Your task to perform on an android device: Open Chrome and go to settings Image 0: 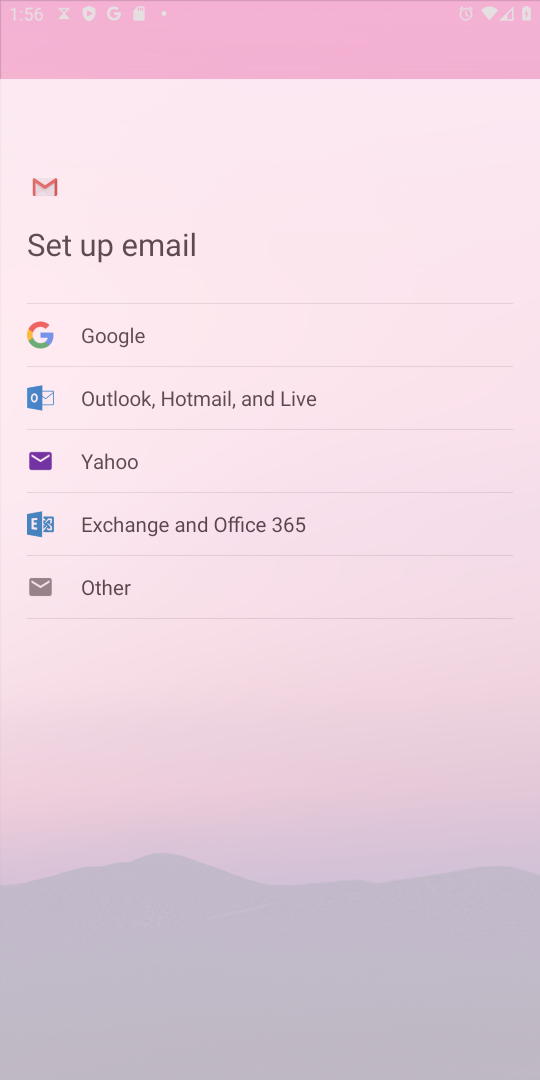
Step 0: press home button
Your task to perform on an android device: Open Chrome and go to settings Image 1: 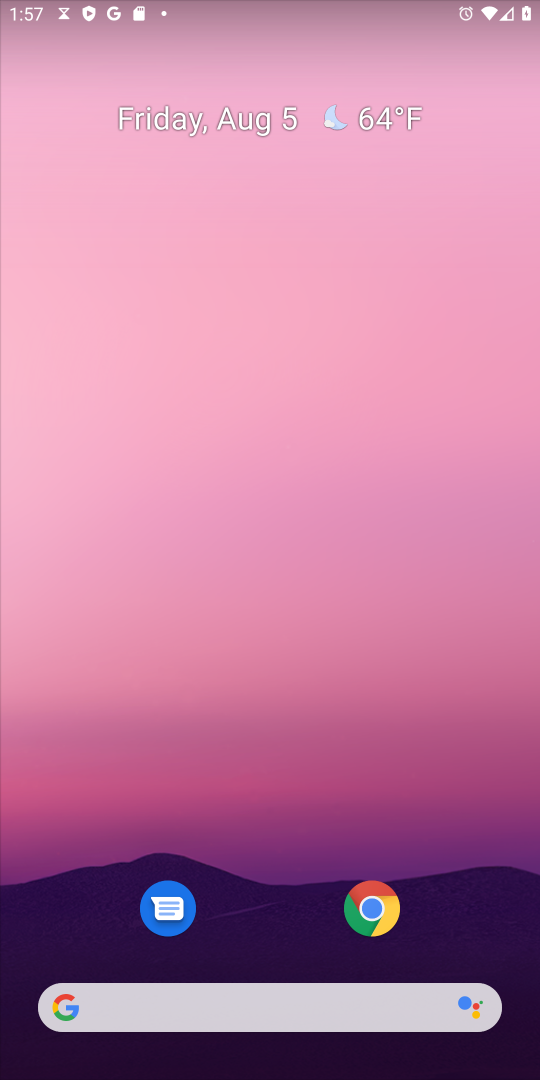
Step 1: drag from (282, 703) to (309, 94)
Your task to perform on an android device: Open Chrome and go to settings Image 2: 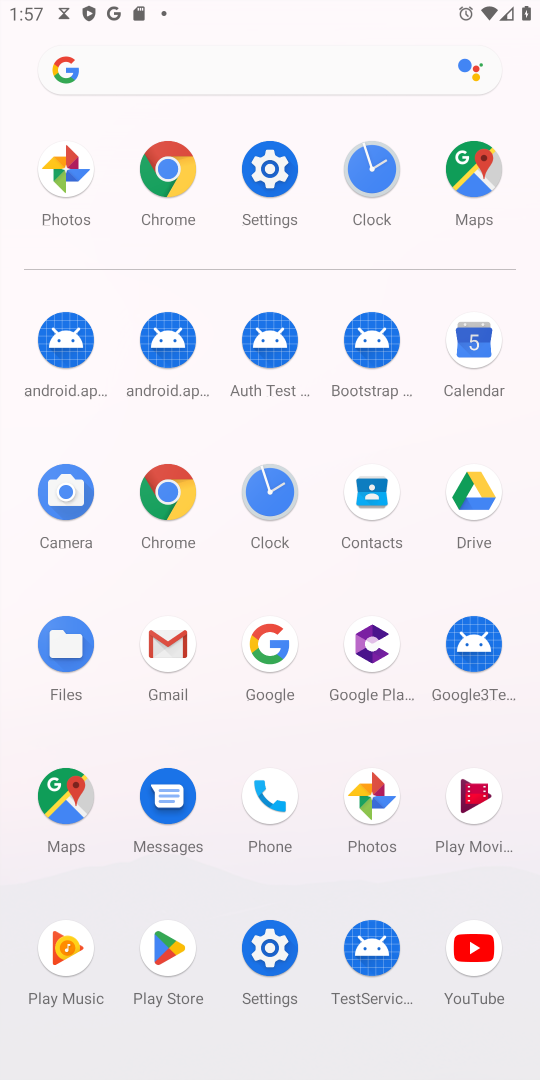
Step 2: click (180, 511)
Your task to perform on an android device: Open Chrome and go to settings Image 3: 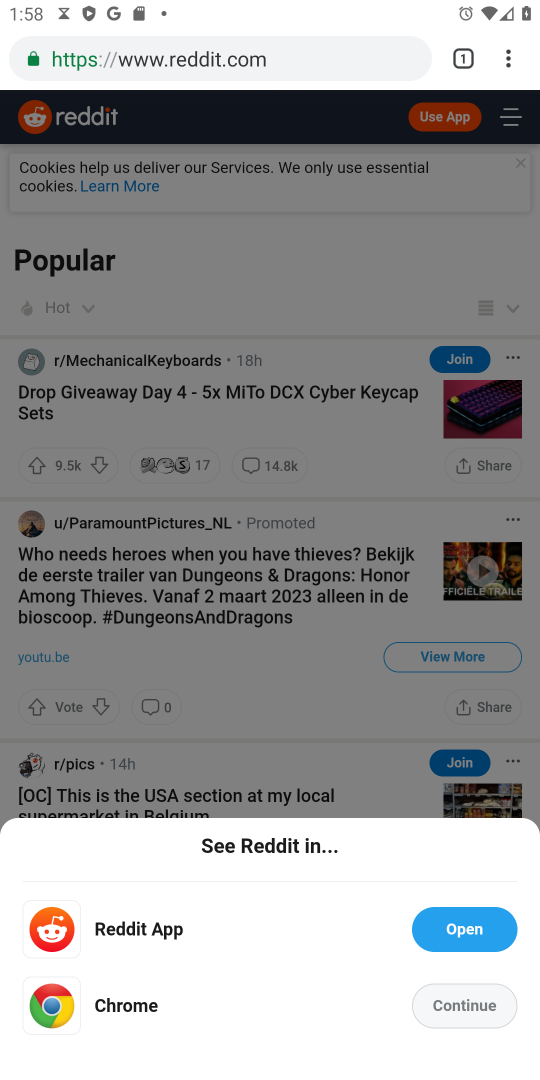
Step 3: task complete